Your task to perform on an android device: Open Android settings Image 0: 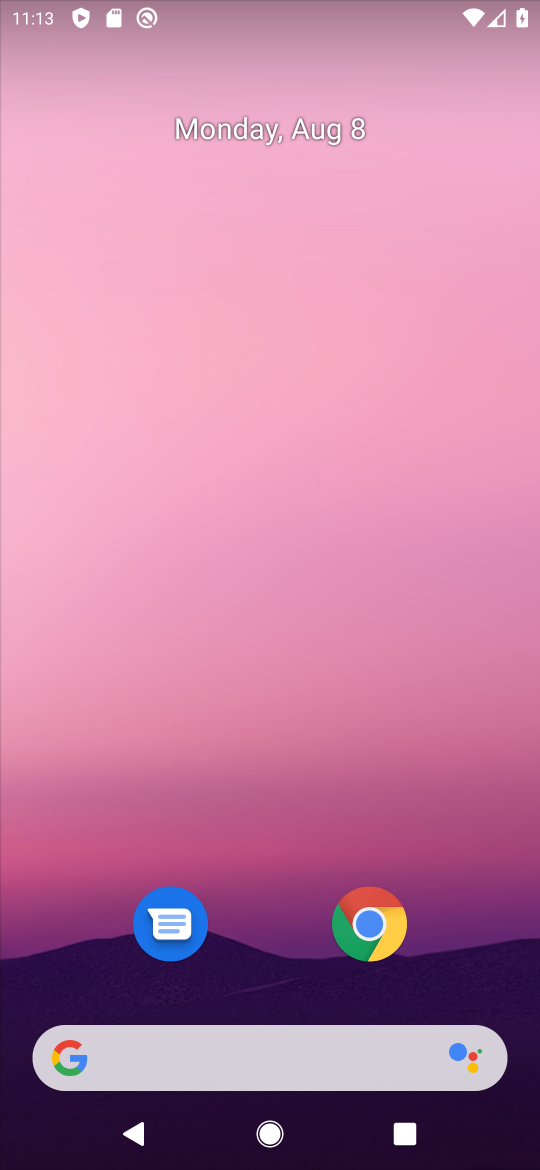
Step 0: drag from (272, 984) to (363, 179)
Your task to perform on an android device: Open Android settings Image 1: 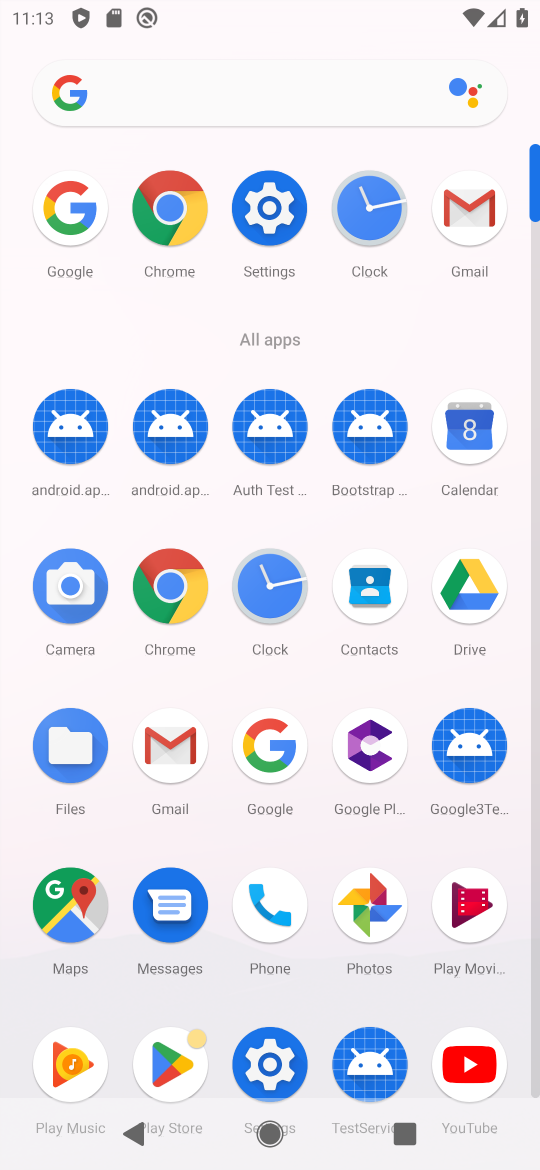
Step 1: click (282, 195)
Your task to perform on an android device: Open Android settings Image 2: 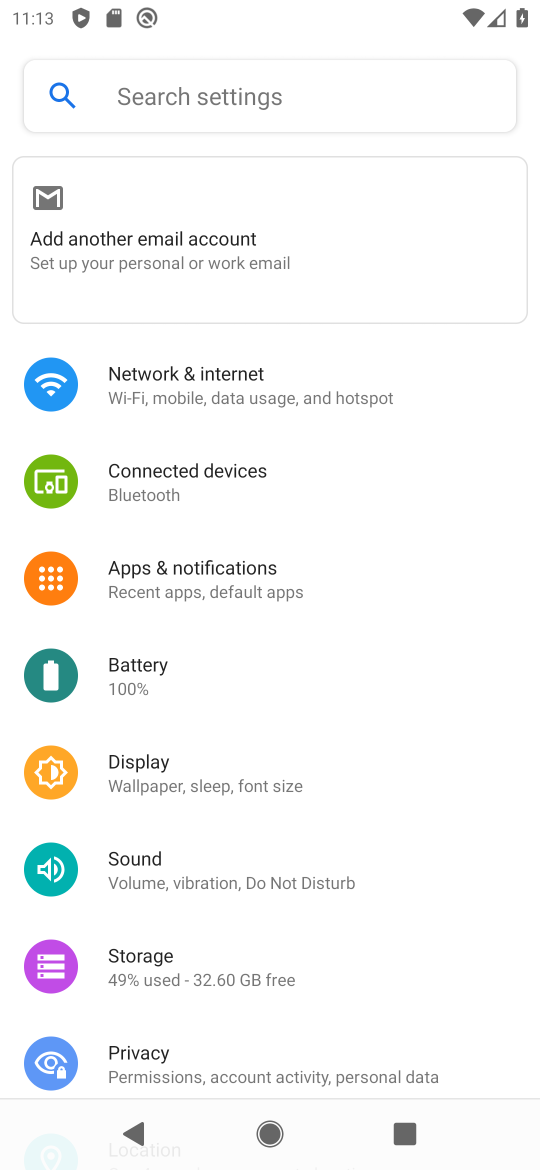
Step 2: task complete